Your task to perform on an android device: Turn on the flashlight Image 0: 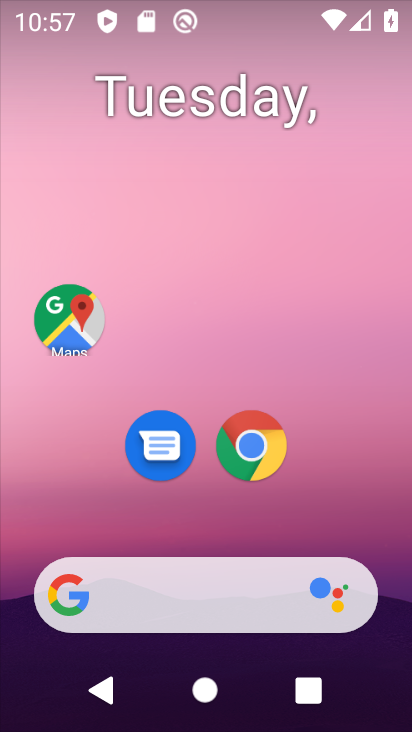
Step 0: drag from (253, 1) to (215, 399)
Your task to perform on an android device: Turn on the flashlight Image 1: 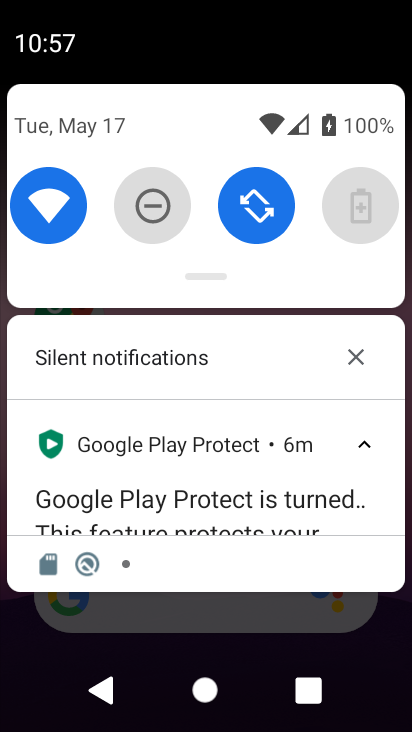
Step 1: drag from (191, 134) to (202, 394)
Your task to perform on an android device: Turn on the flashlight Image 2: 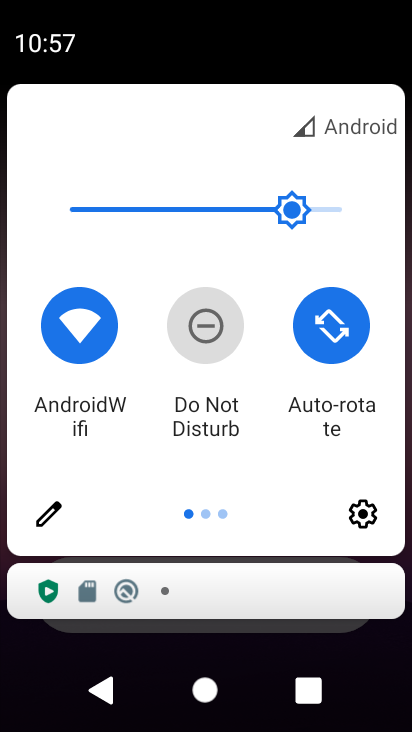
Step 2: click (51, 520)
Your task to perform on an android device: Turn on the flashlight Image 3: 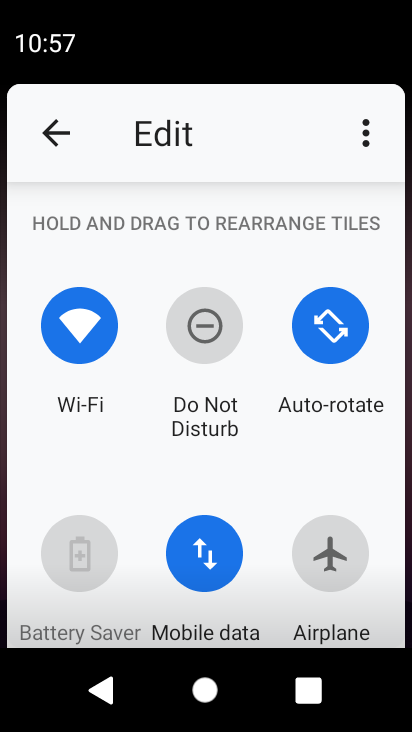
Step 3: task complete